Your task to perform on an android device: check data usage Image 0: 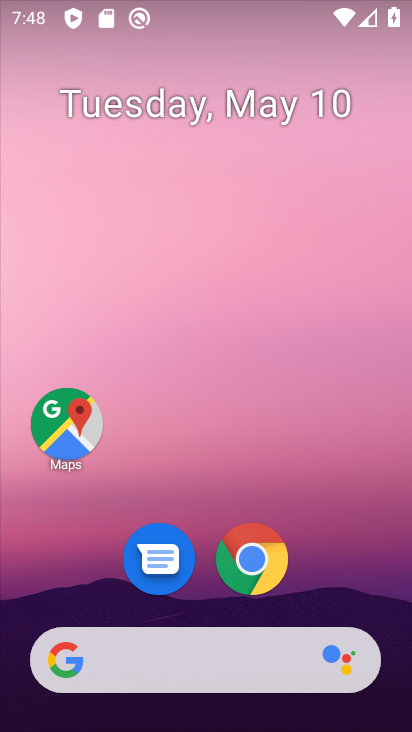
Step 0: drag from (289, 18) to (281, 472)
Your task to perform on an android device: check data usage Image 1: 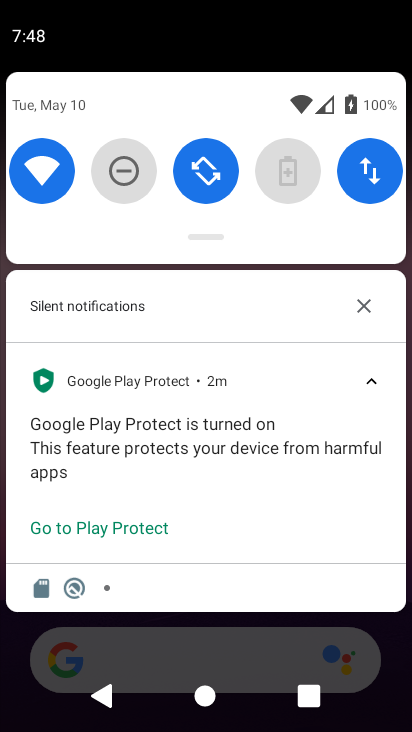
Step 1: click (376, 174)
Your task to perform on an android device: check data usage Image 2: 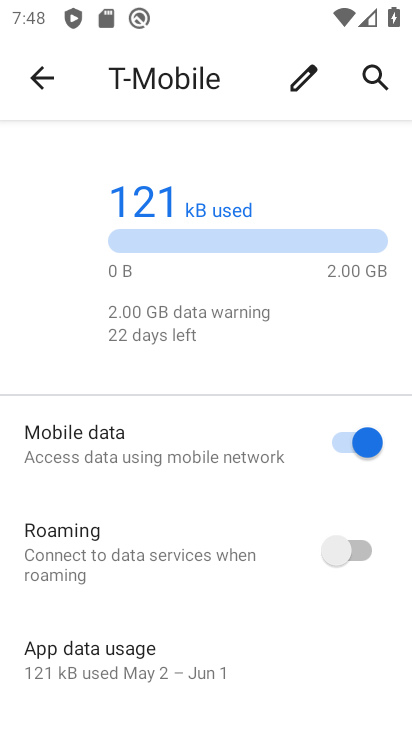
Step 2: task complete